Your task to perform on an android device: turn notification dots on Image 0: 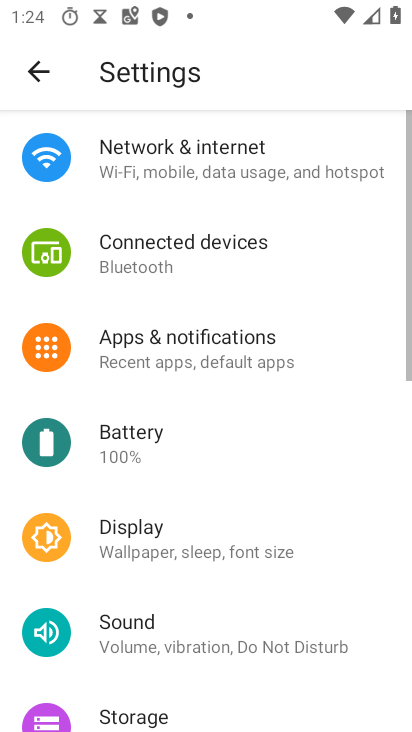
Step 0: press home button
Your task to perform on an android device: turn notification dots on Image 1: 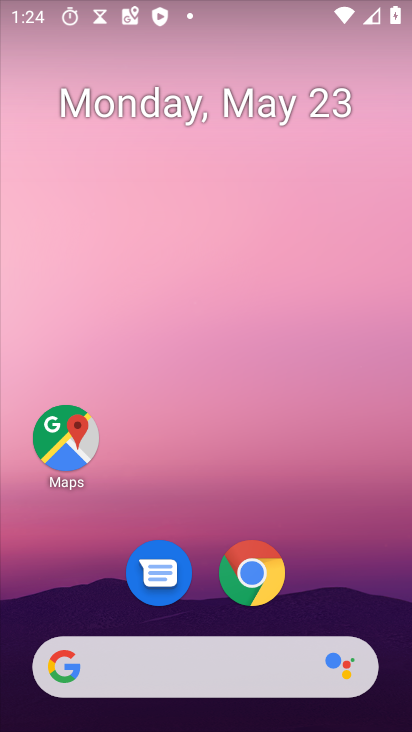
Step 1: drag from (168, 655) to (314, 57)
Your task to perform on an android device: turn notification dots on Image 2: 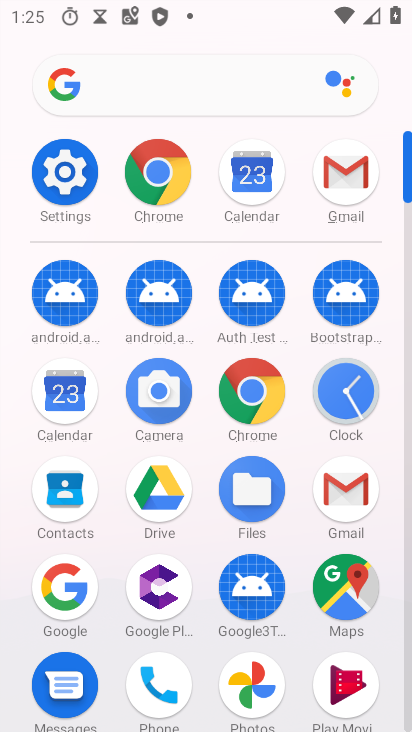
Step 2: click (73, 178)
Your task to perform on an android device: turn notification dots on Image 3: 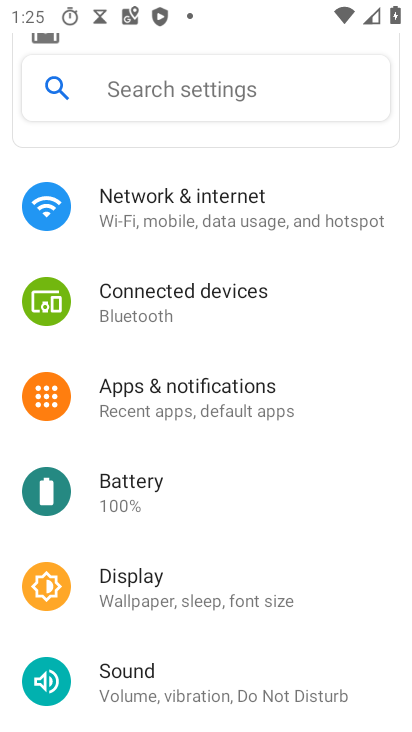
Step 3: click (196, 390)
Your task to perform on an android device: turn notification dots on Image 4: 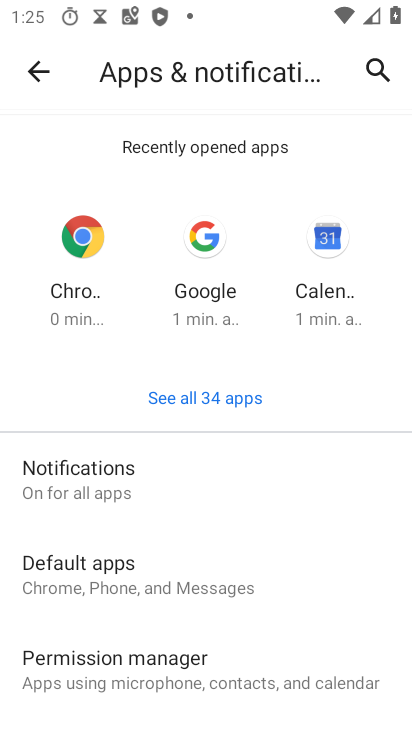
Step 4: click (57, 480)
Your task to perform on an android device: turn notification dots on Image 5: 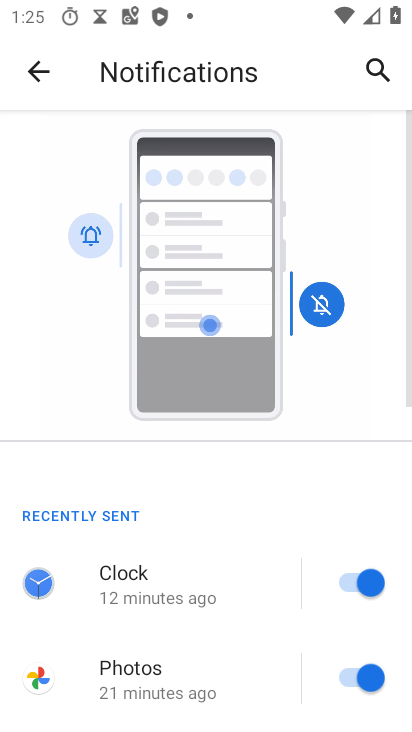
Step 5: drag from (150, 645) to (326, 140)
Your task to perform on an android device: turn notification dots on Image 6: 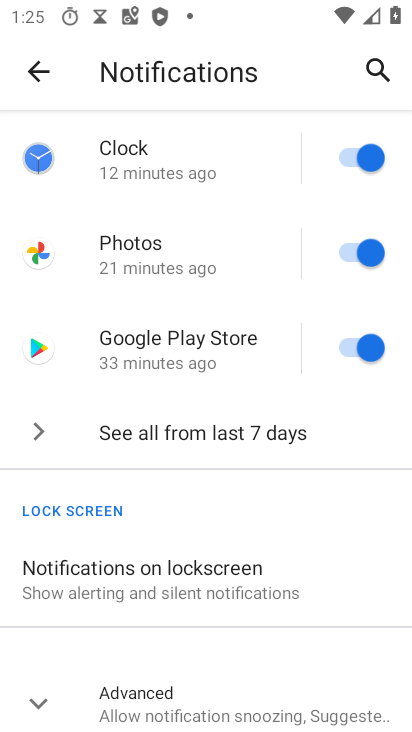
Step 6: click (149, 683)
Your task to perform on an android device: turn notification dots on Image 7: 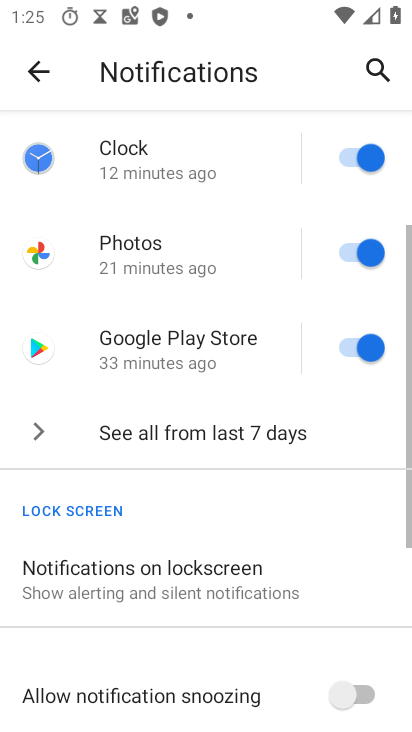
Step 7: drag from (168, 656) to (325, 89)
Your task to perform on an android device: turn notification dots on Image 8: 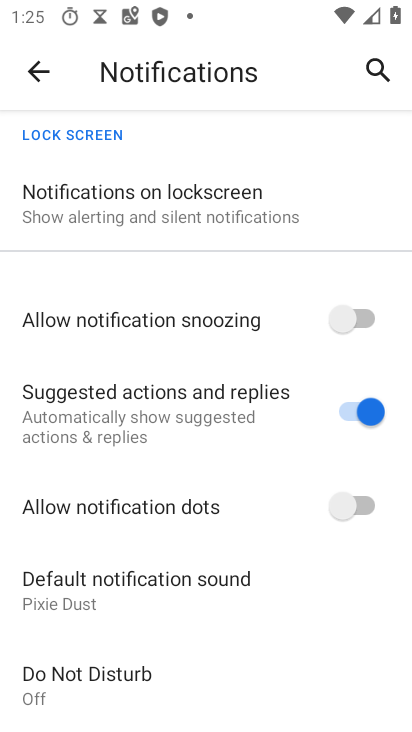
Step 8: click (370, 504)
Your task to perform on an android device: turn notification dots on Image 9: 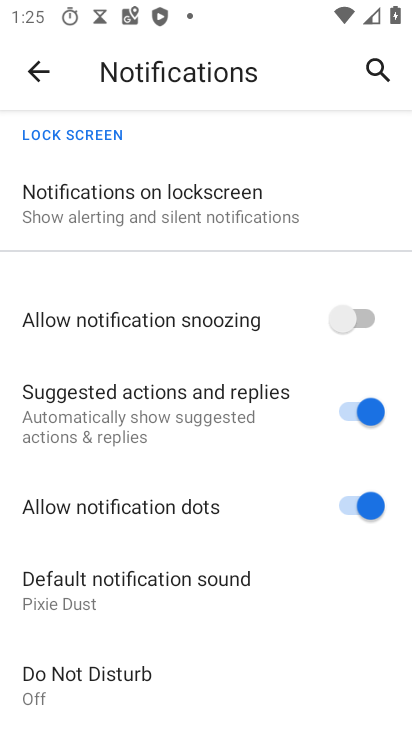
Step 9: task complete